Your task to perform on an android device: Open Google Chrome and open the bookmarks view Image 0: 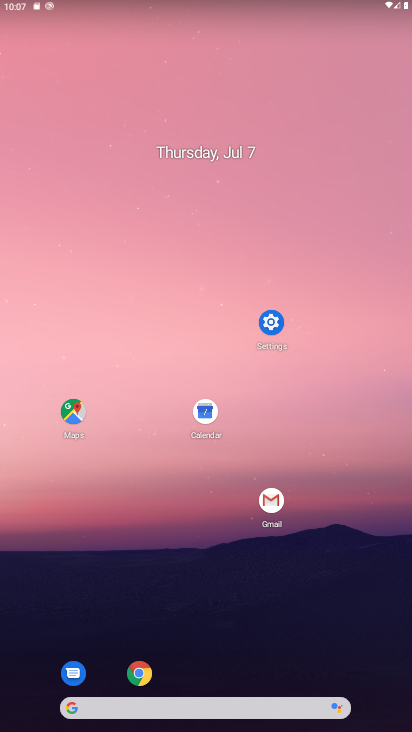
Step 0: click (133, 676)
Your task to perform on an android device: Open Google Chrome and open the bookmarks view Image 1: 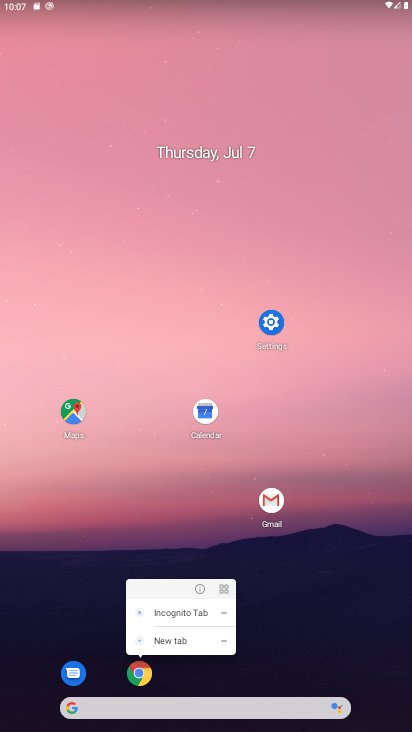
Step 1: click (134, 675)
Your task to perform on an android device: Open Google Chrome and open the bookmarks view Image 2: 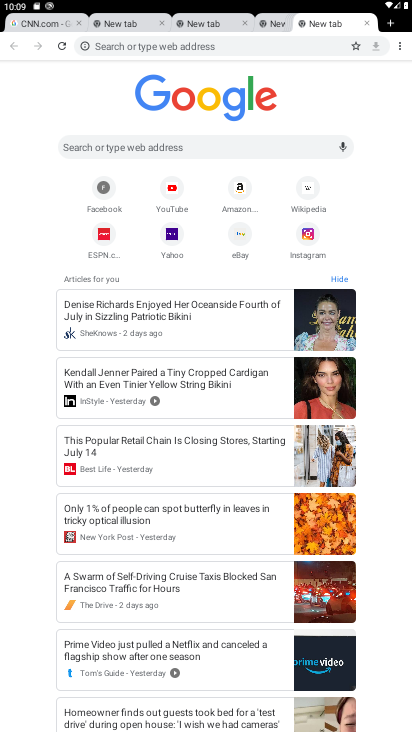
Step 2: click (396, 44)
Your task to perform on an android device: Open Google Chrome and open the bookmarks view Image 3: 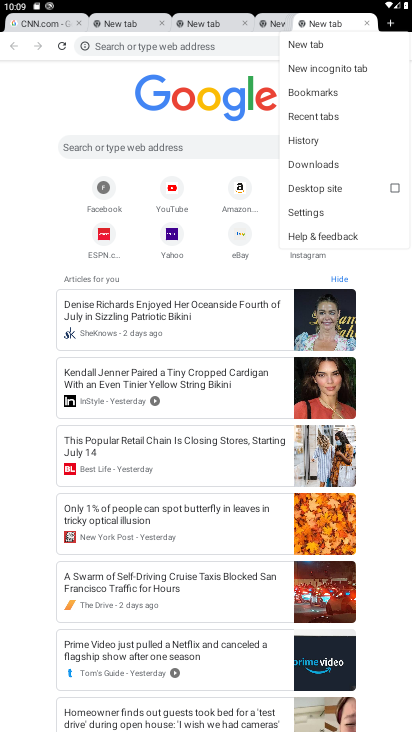
Step 3: click (308, 86)
Your task to perform on an android device: Open Google Chrome and open the bookmarks view Image 4: 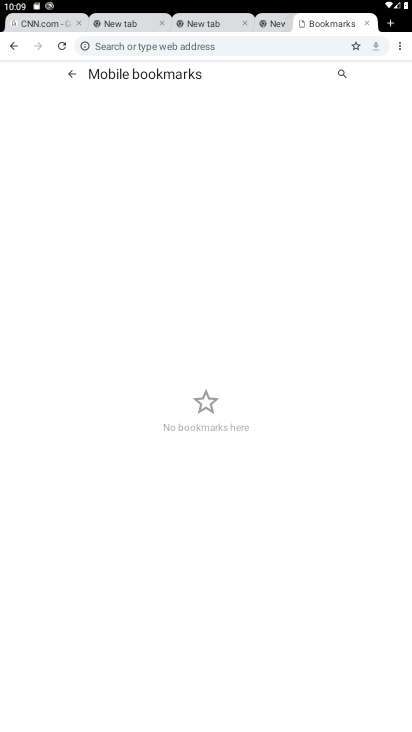
Step 4: task complete